Your task to perform on an android device: turn pop-ups off in chrome Image 0: 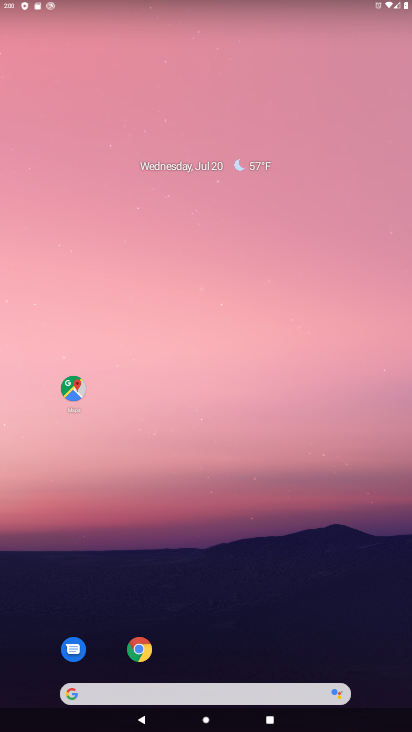
Step 0: click (133, 646)
Your task to perform on an android device: turn pop-ups off in chrome Image 1: 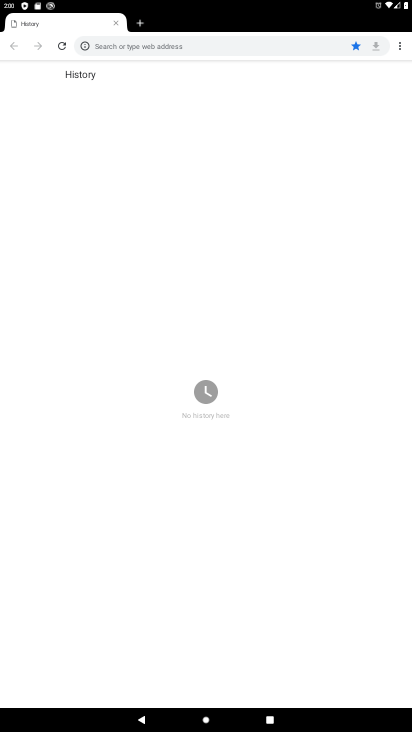
Step 1: click (406, 52)
Your task to perform on an android device: turn pop-ups off in chrome Image 2: 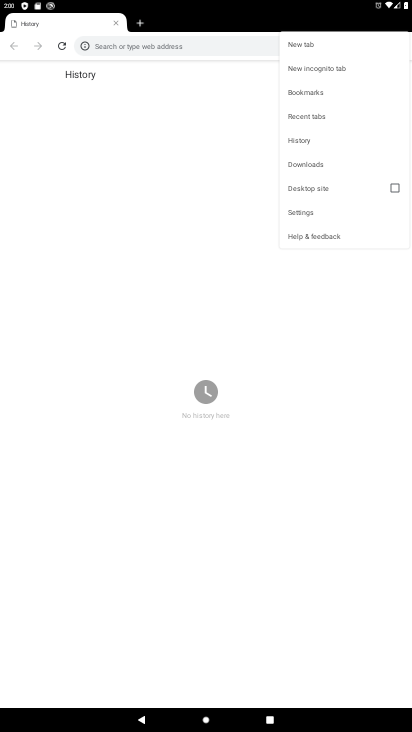
Step 2: click (315, 203)
Your task to perform on an android device: turn pop-ups off in chrome Image 3: 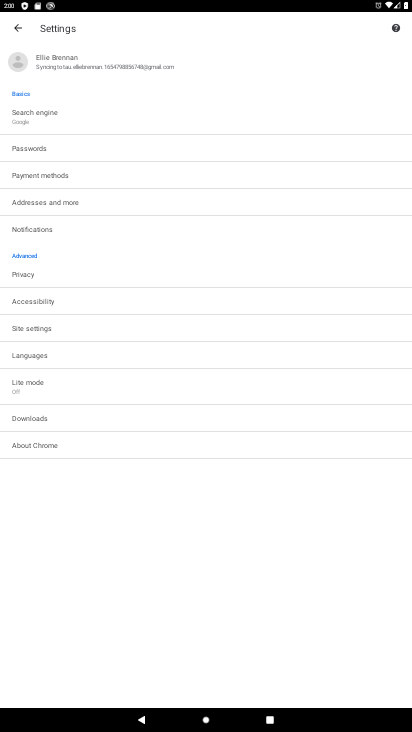
Step 3: click (42, 330)
Your task to perform on an android device: turn pop-ups off in chrome Image 4: 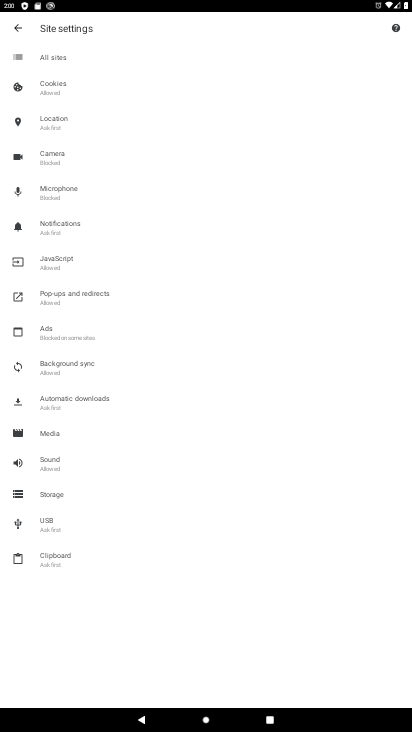
Step 4: click (72, 298)
Your task to perform on an android device: turn pop-ups off in chrome Image 5: 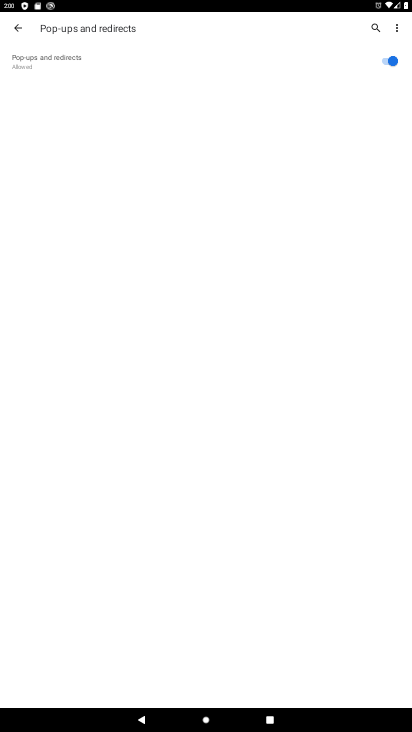
Step 5: click (381, 63)
Your task to perform on an android device: turn pop-ups off in chrome Image 6: 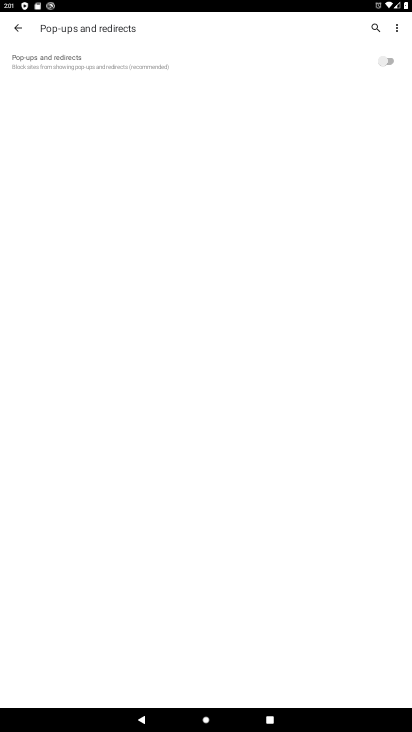
Step 6: task complete